Your task to perform on an android device: Search for flights from Mexico city to Zurich Image 0: 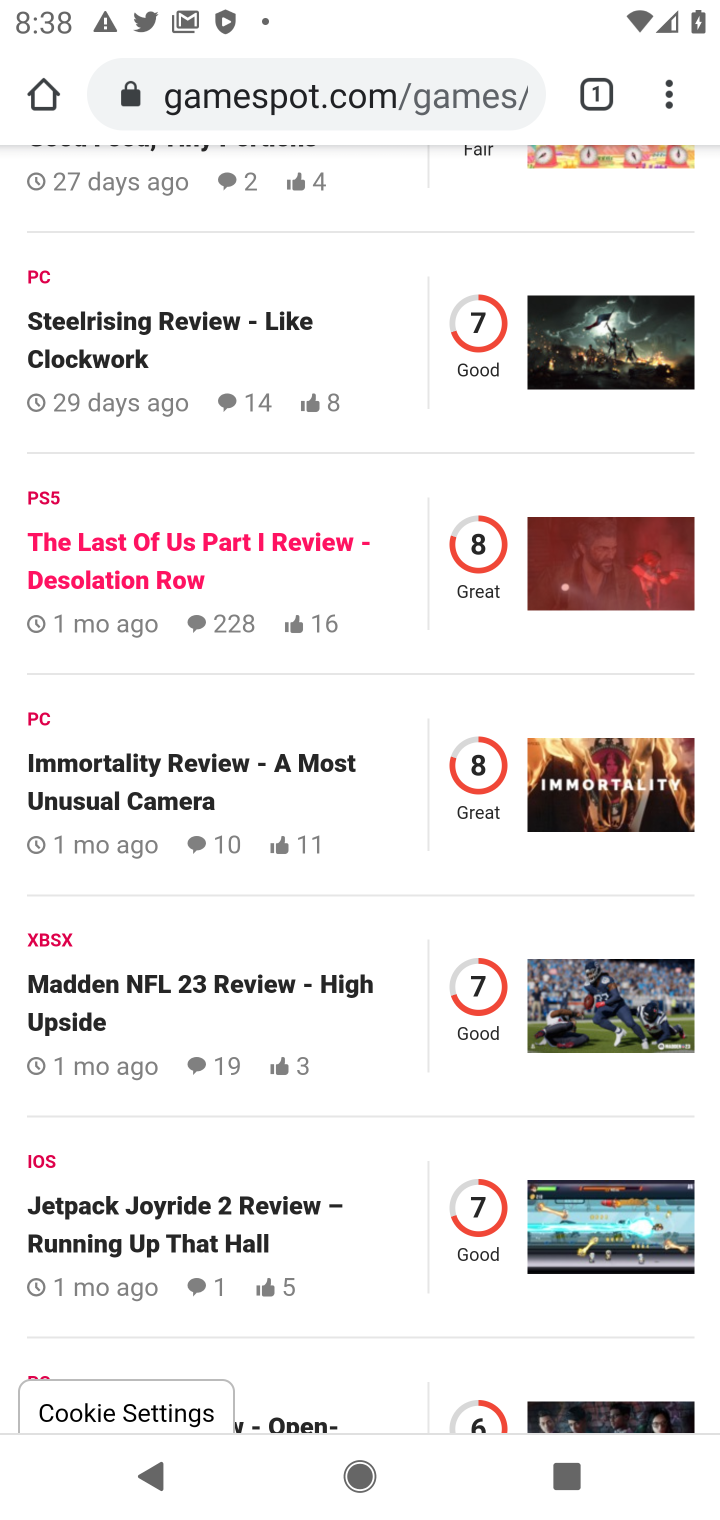
Step 0: press home button
Your task to perform on an android device: Search for flights from Mexico city to Zurich Image 1: 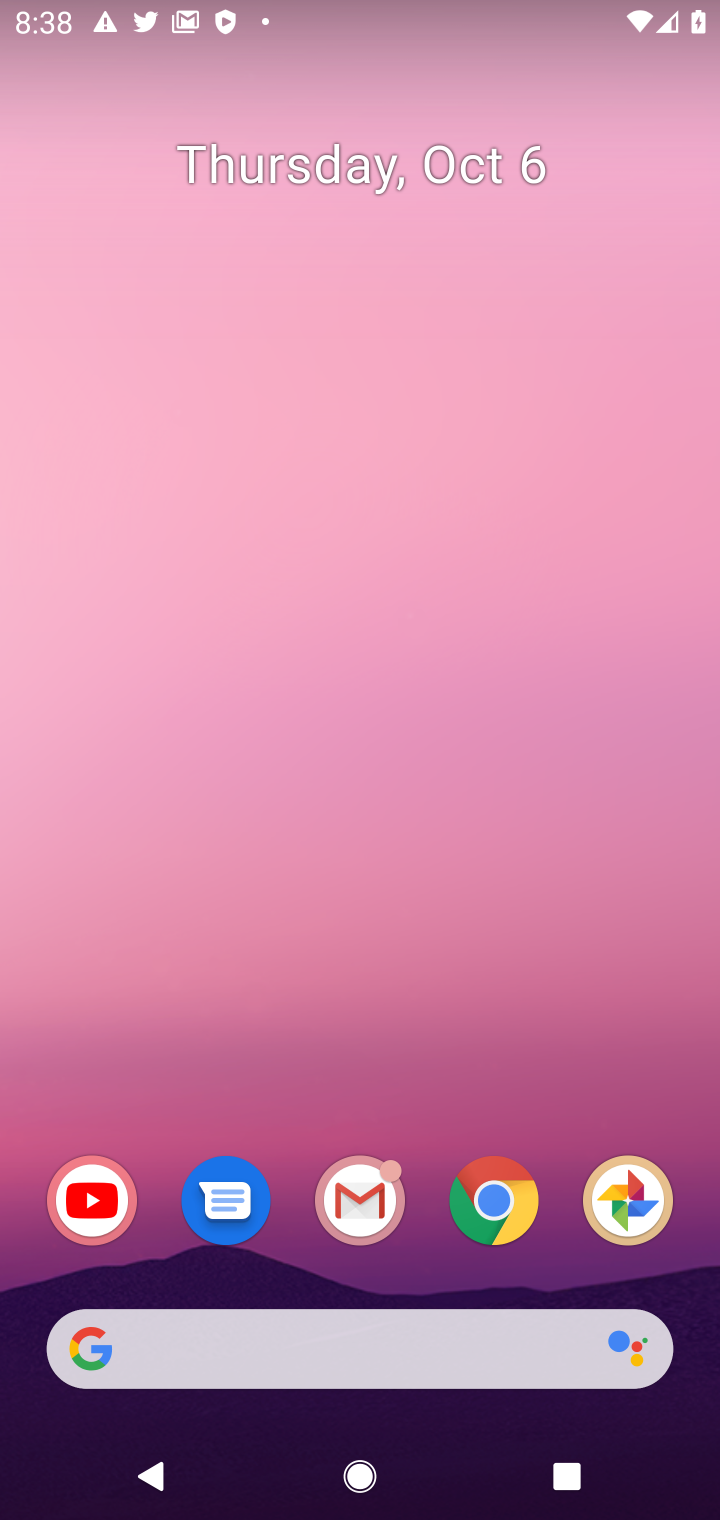
Step 1: click (521, 1208)
Your task to perform on an android device: Search for flights from Mexico city to Zurich Image 2: 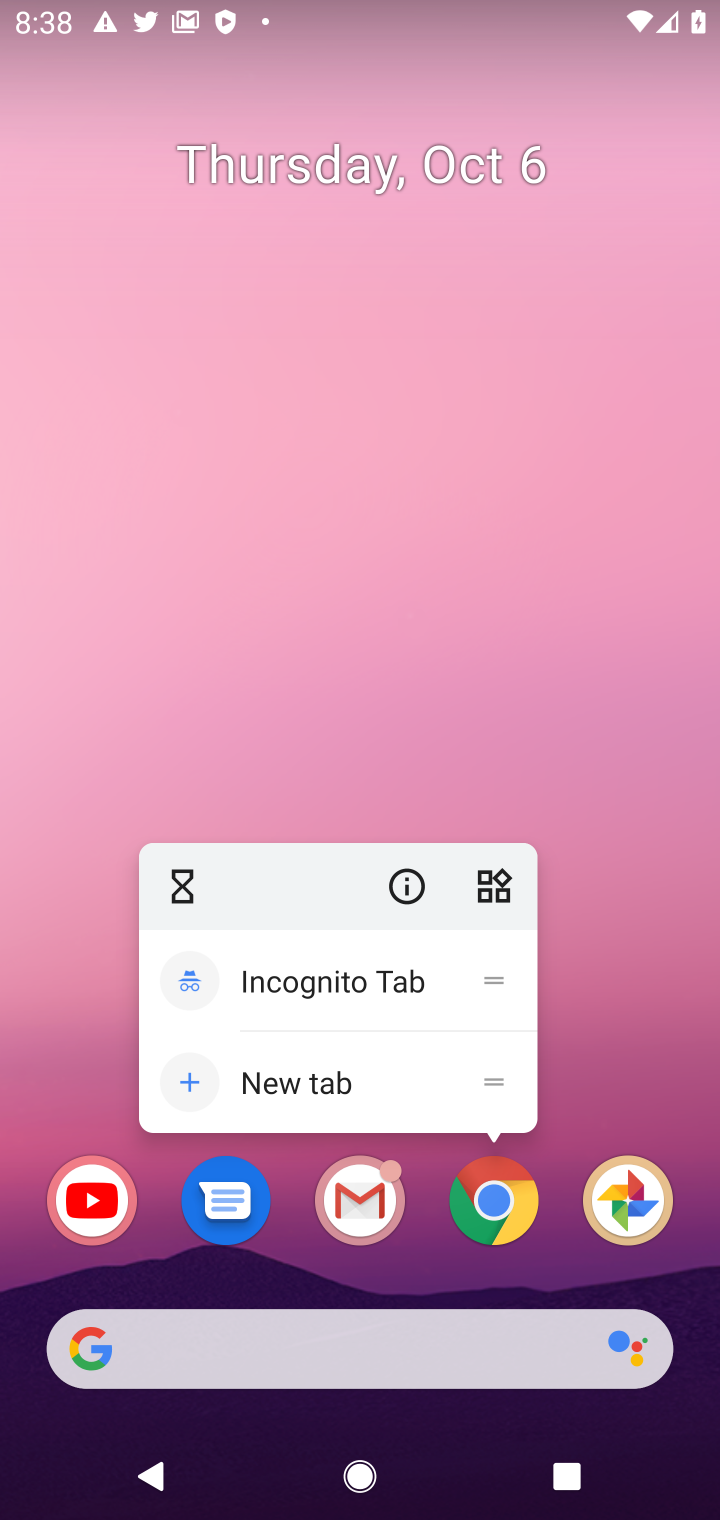
Step 2: press back button
Your task to perform on an android device: Search for flights from Mexico city to Zurich Image 3: 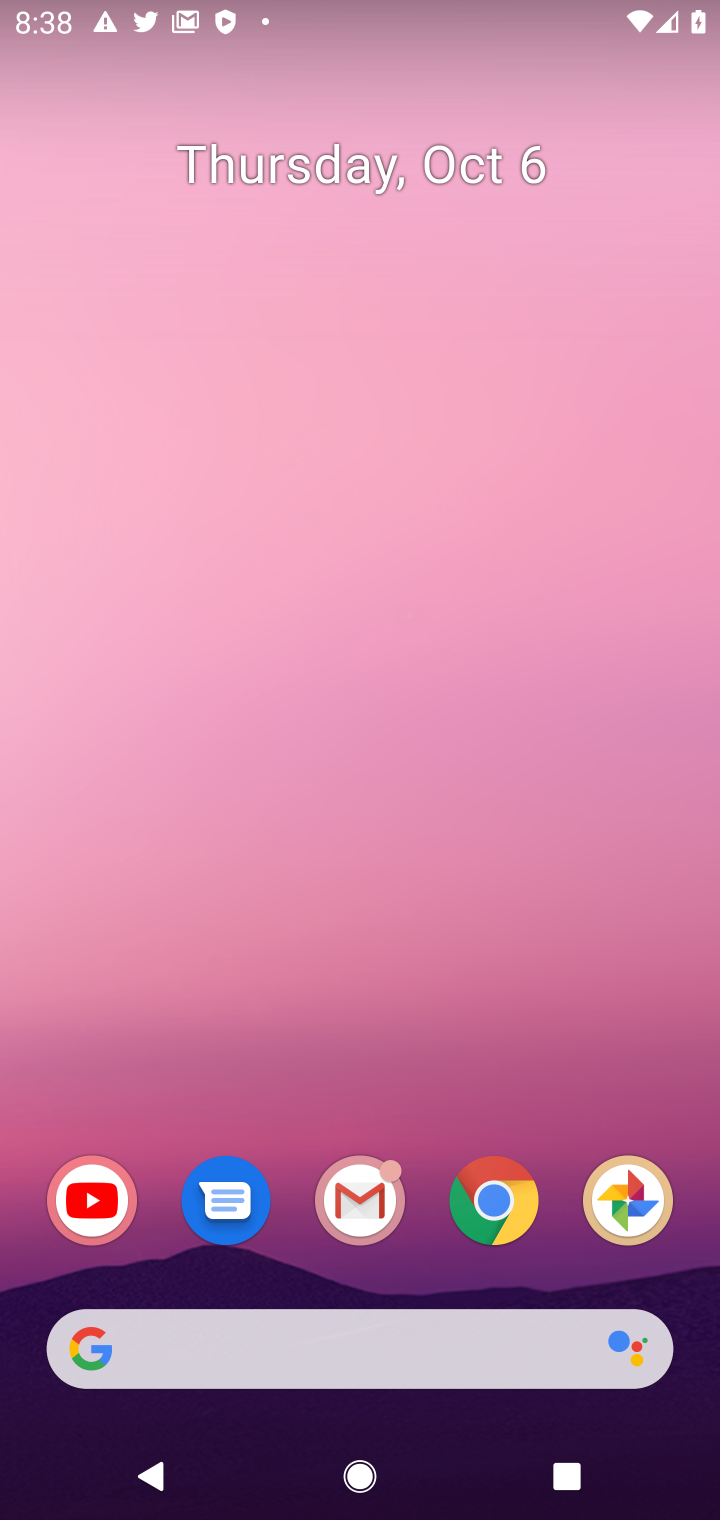
Step 3: click (491, 1178)
Your task to perform on an android device: Search for flights from Mexico city to Zurich Image 4: 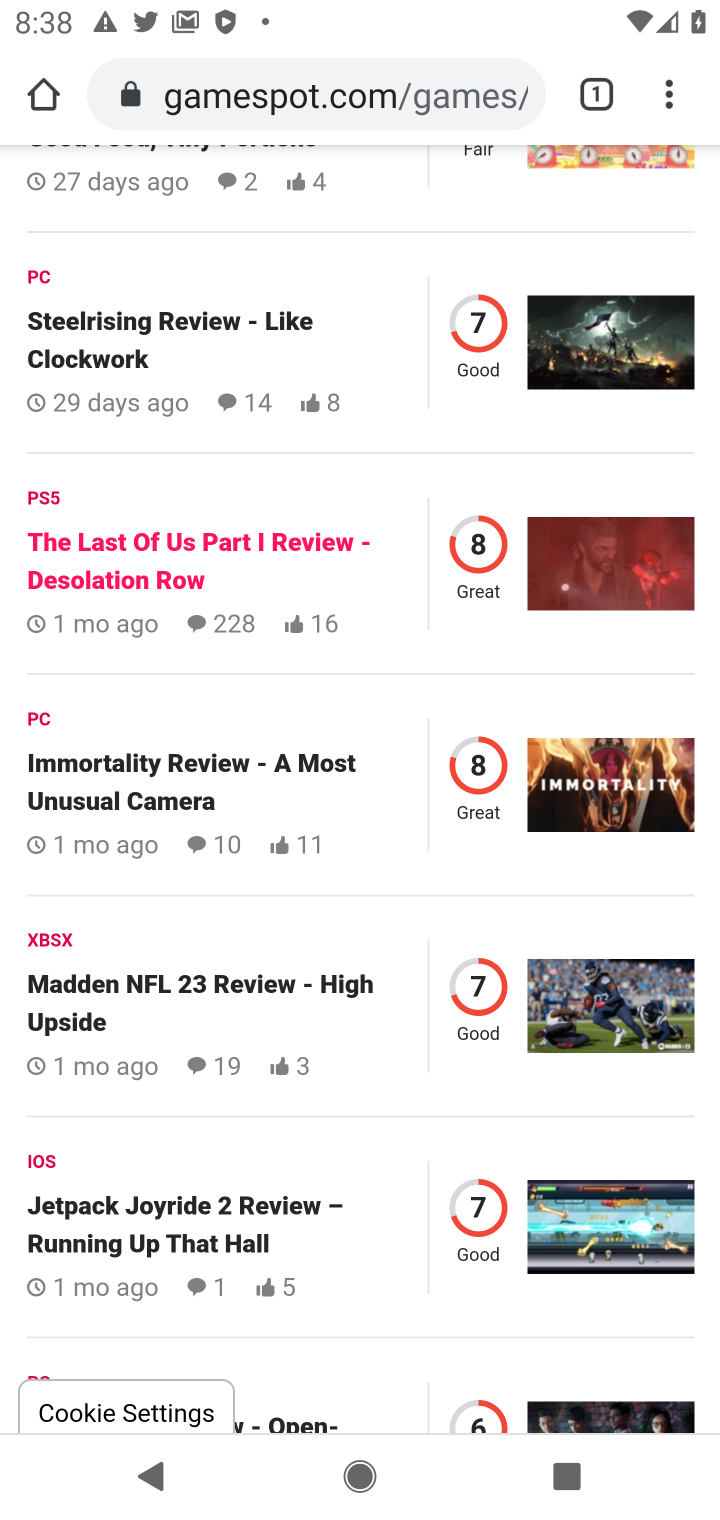
Step 4: click (429, 95)
Your task to perform on an android device: Search for flights from Mexico city to Zurich Image 5: 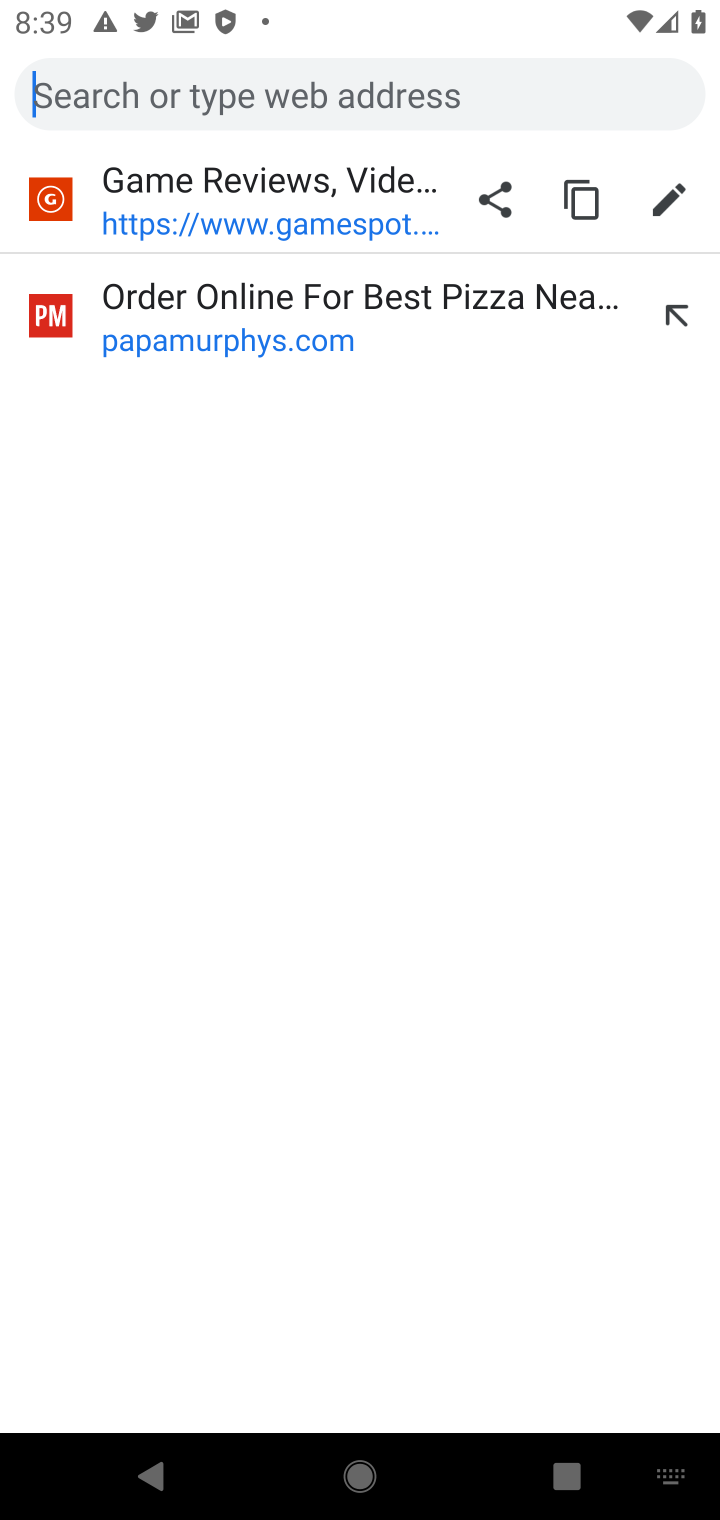
Step 5: type "flights from mexico city to zurich"
Your task to perform on an android device: Search for flights from Mexico city to Zurich Image 6: 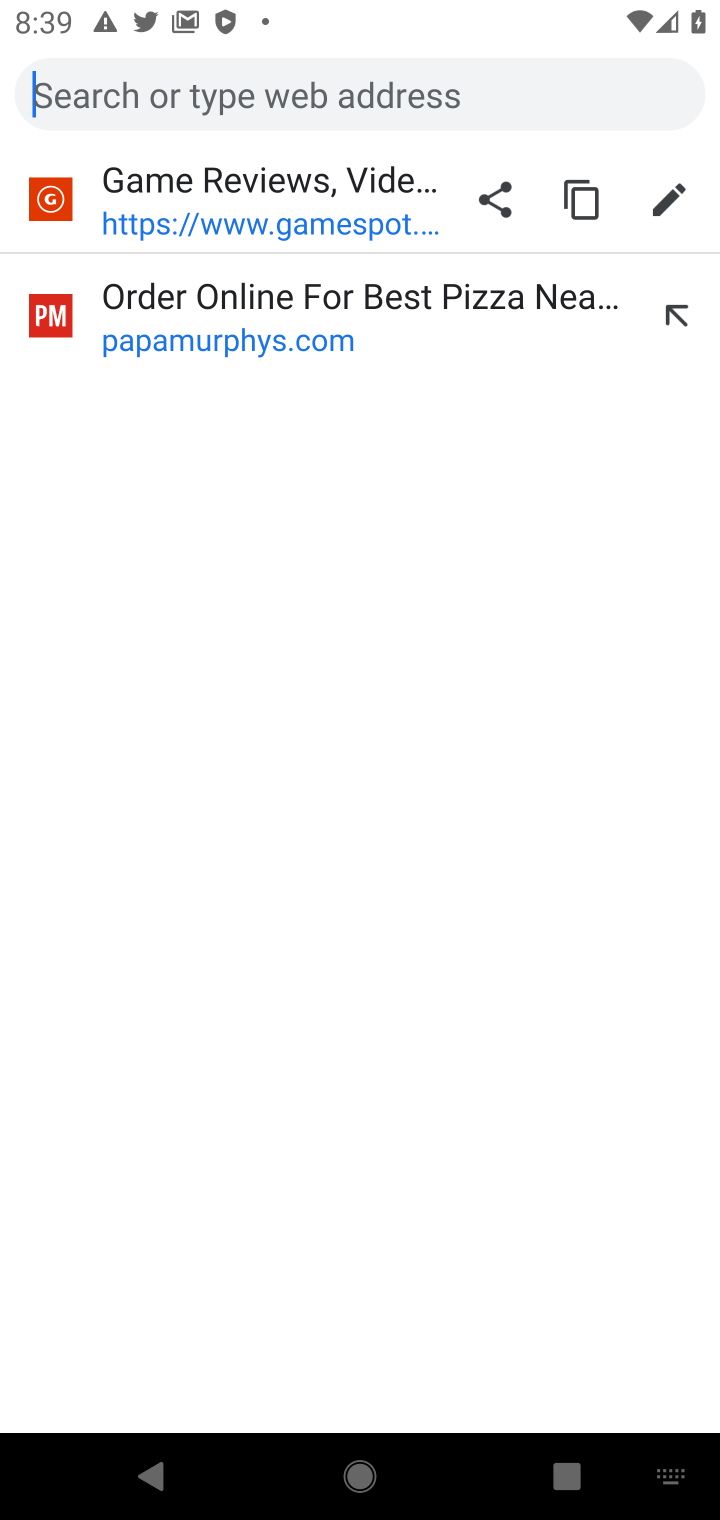
Step 6: click (390, 89)
Your task to perform on an android device: Search for flights from Mexico city to Zurich Image 7: 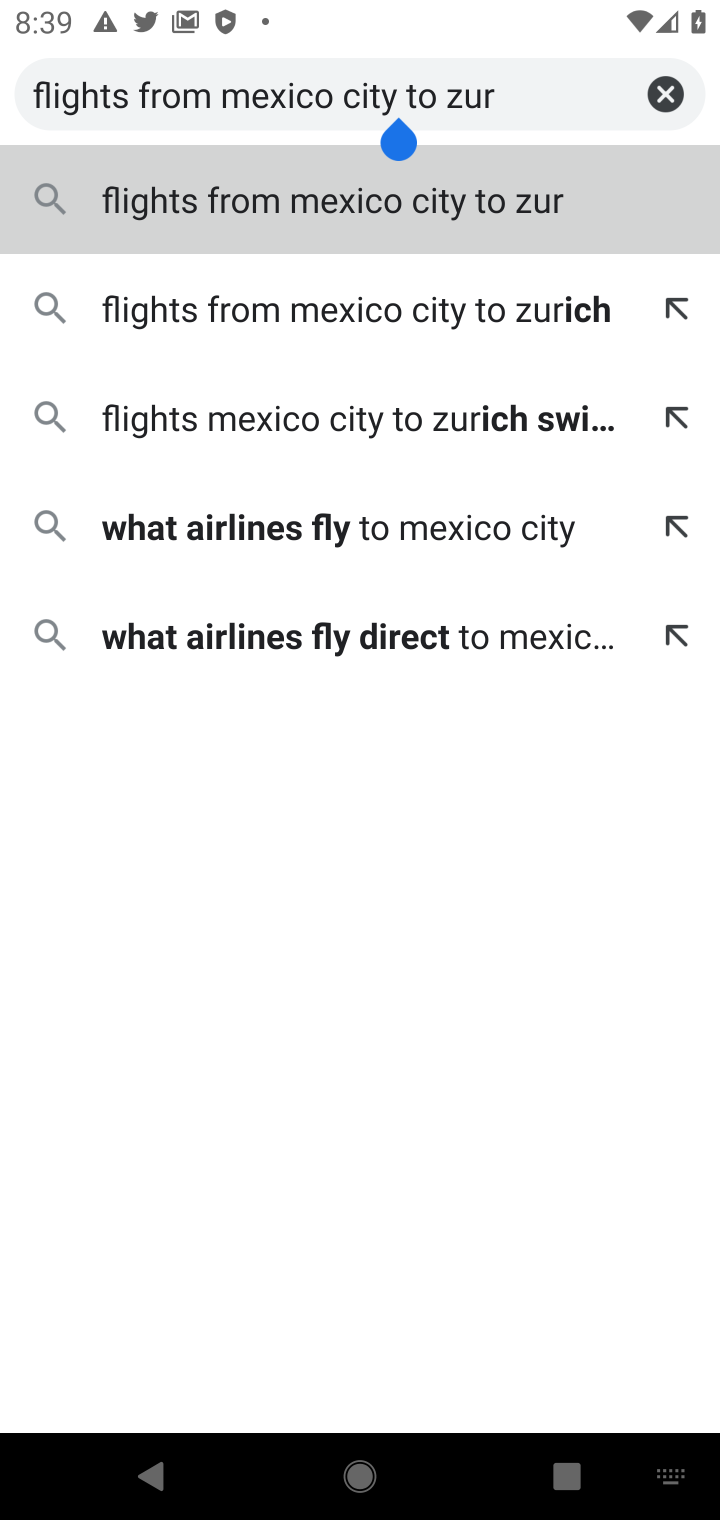
Step 7: type "flight fr"
Your task to perform on an android device: Search for flights from Mexico city to Zurich Image 8: 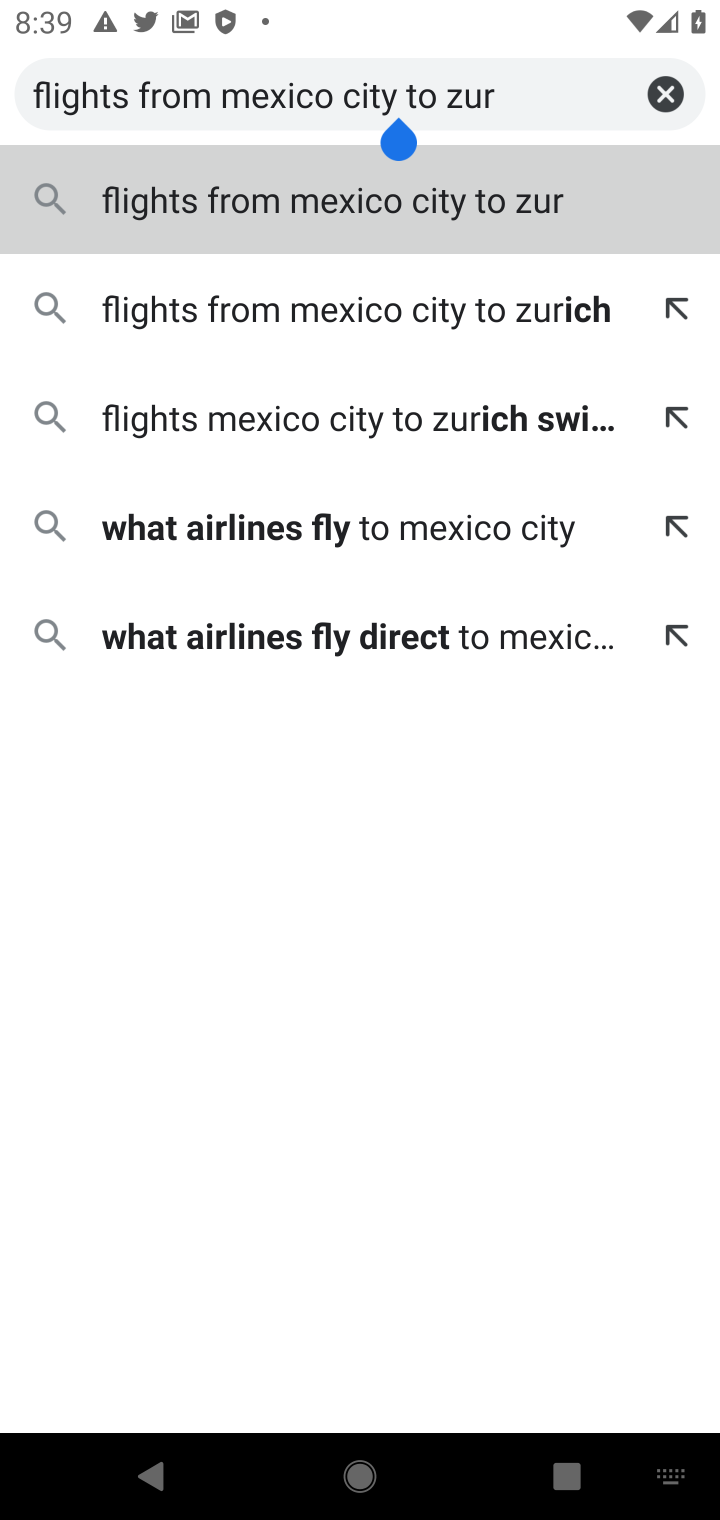
Step 8: click (573, 309)
Your task to perform on an android device: Search for flights from Mexico city to Zurich Image 9: 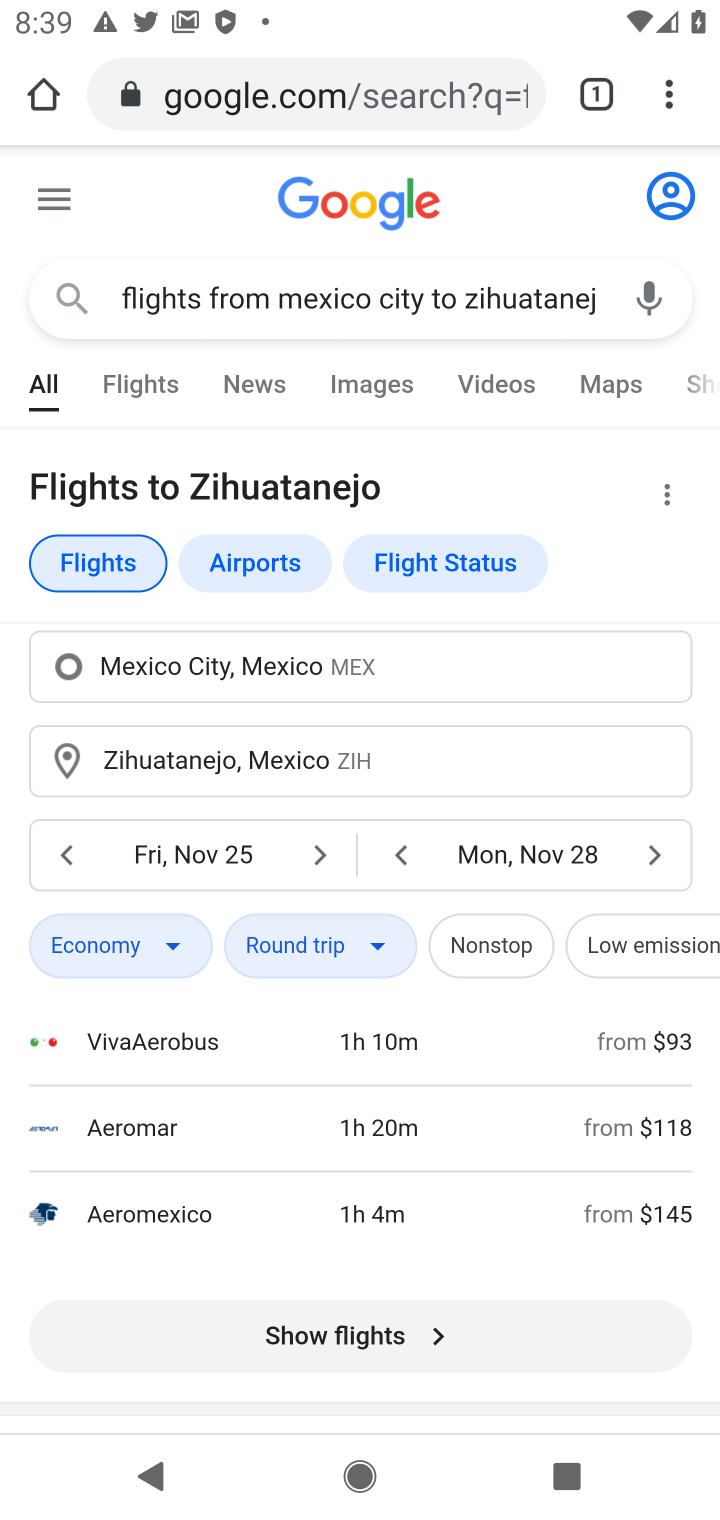
Step 9: click (454, 753)
Your task to perform on an android device: Search for flights from Mexico city to Zurich Image 10: 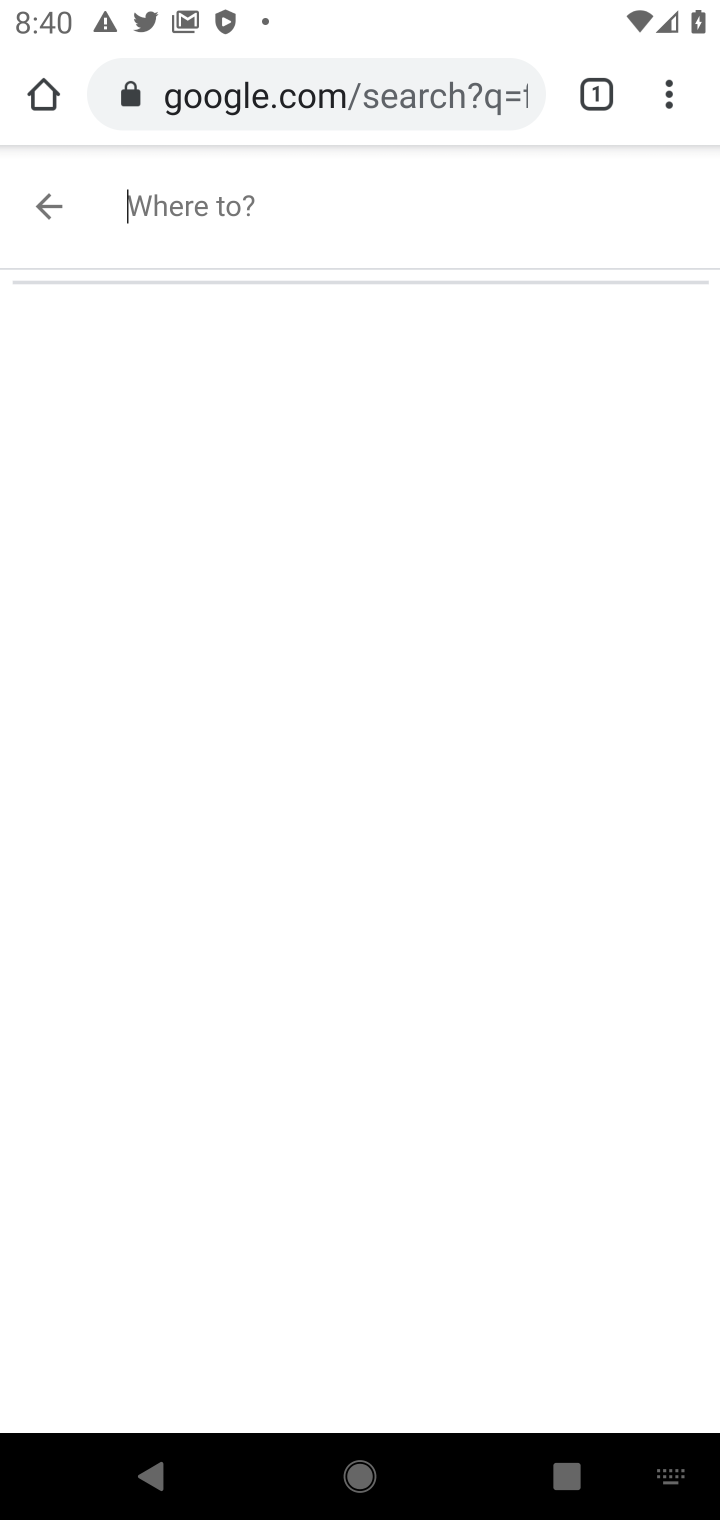
Step 10: type "zurich"
Your task to perform on an android device: Search for flights from Mexico city to Zurich Image 11: 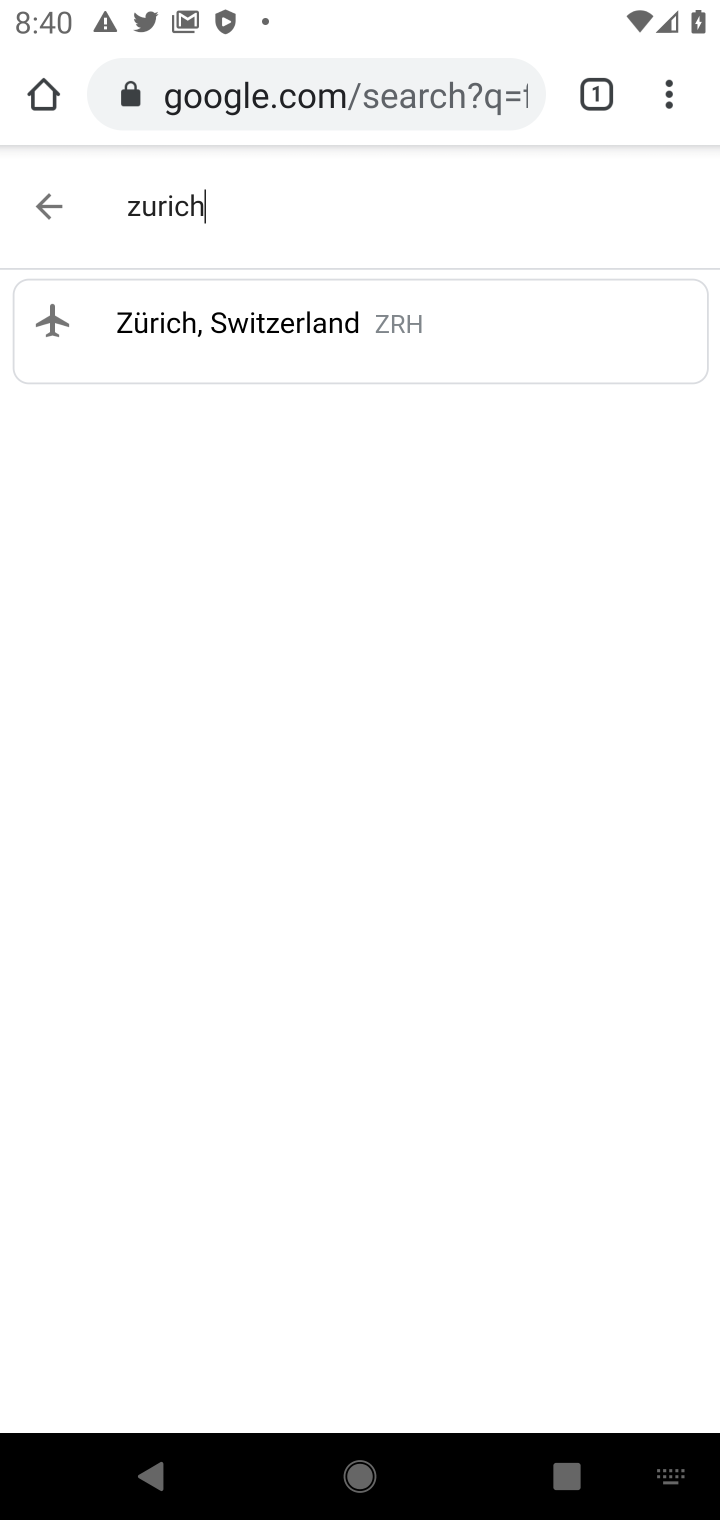
Step 11: type ""
Your task to perform on an android device: Search for flights from Mexico city to Zurich Image 12: 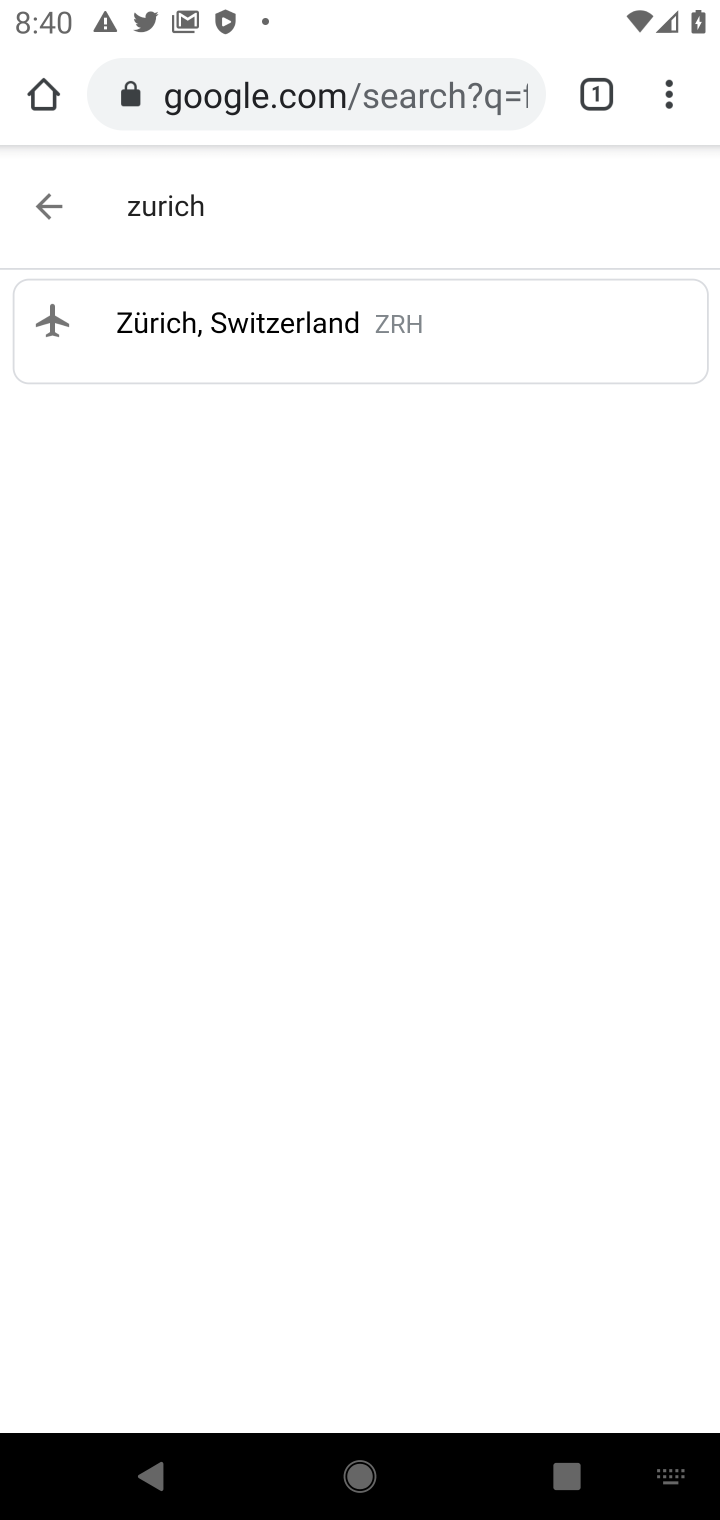
Step 12: click (158, 330)
Your task to perform on an android device: Search for flights from Mexico city to Zurich Image 13: 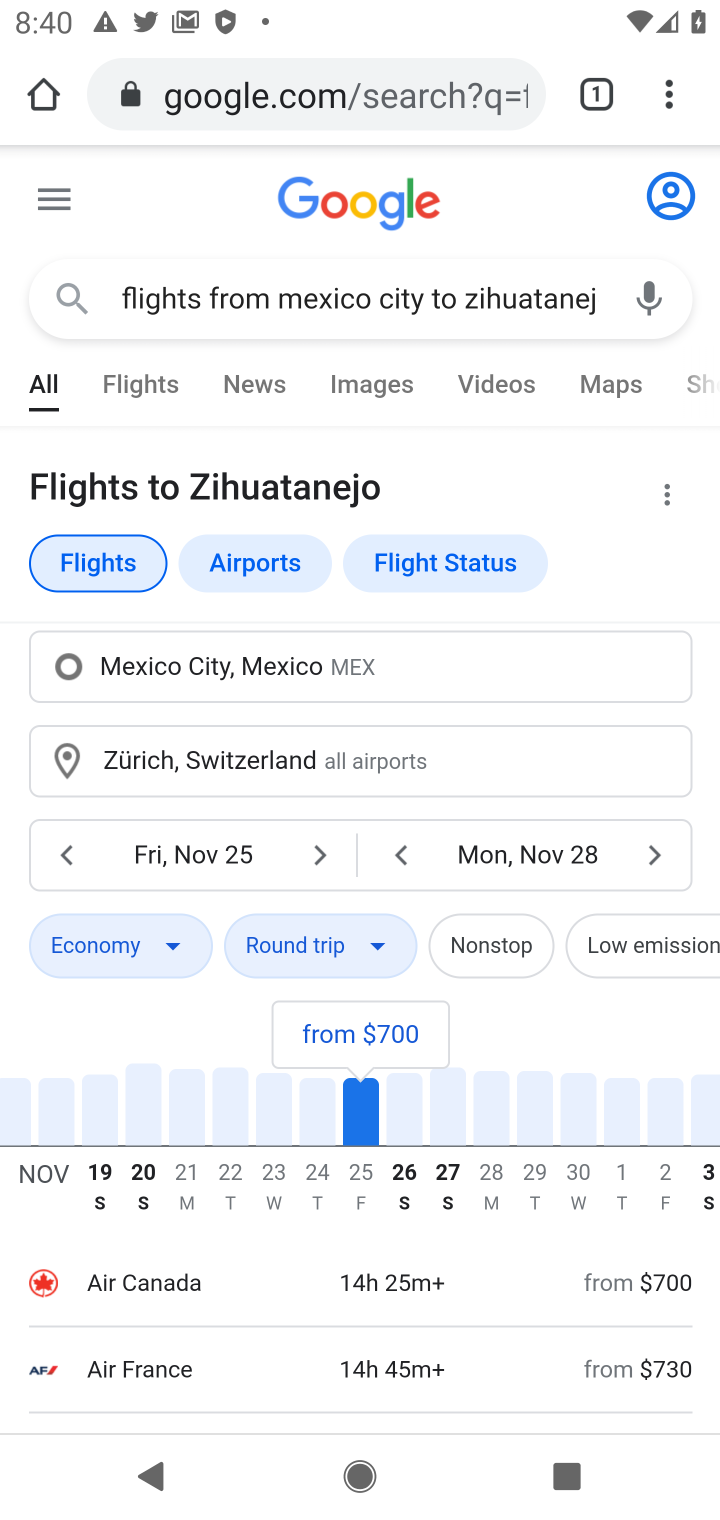
Step 13: drag from (517, 1060) to (523, 609)
Your task to perform on an android device: Search for flights from Mexico city to Zurich Image 14: 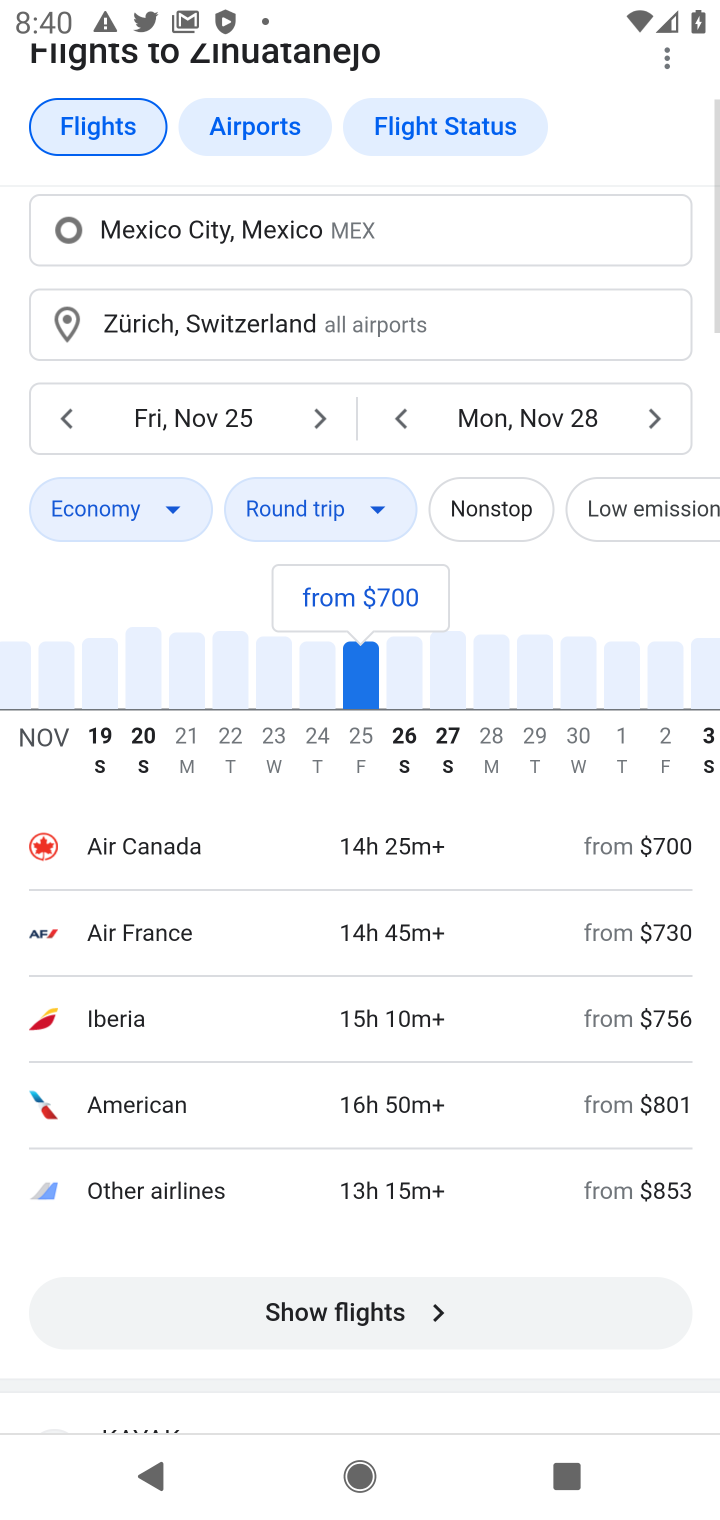
Step 14: click (106, 930)
Your task to perform on an android device: Search for flights from Mexico city to Zurich Image 15: 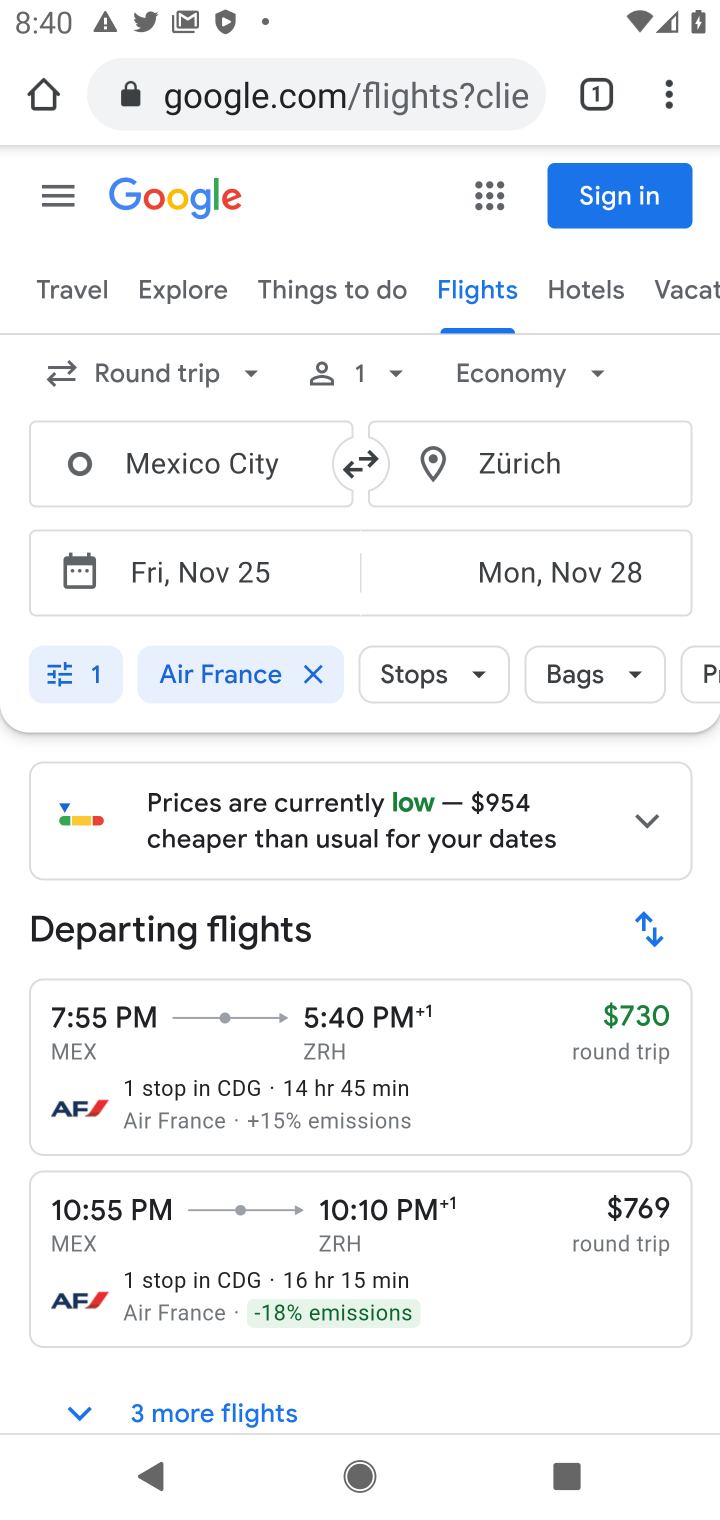
Step 15: task complete